Your task to perform on an android device: Open my contact list Image 0: 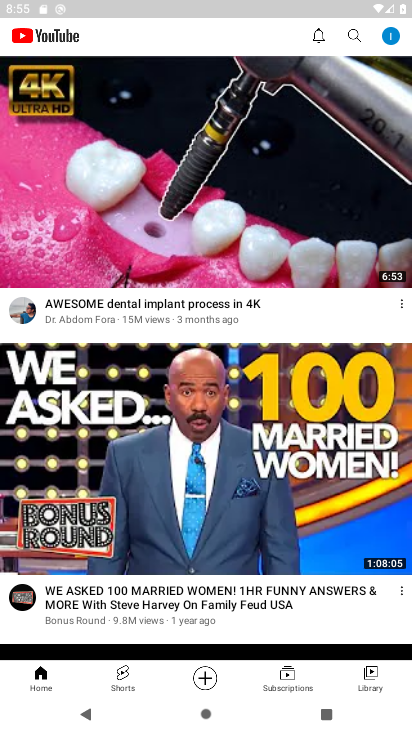
Step 0: press home button
Your task to perform on an android device: Open my contact list Image 1: 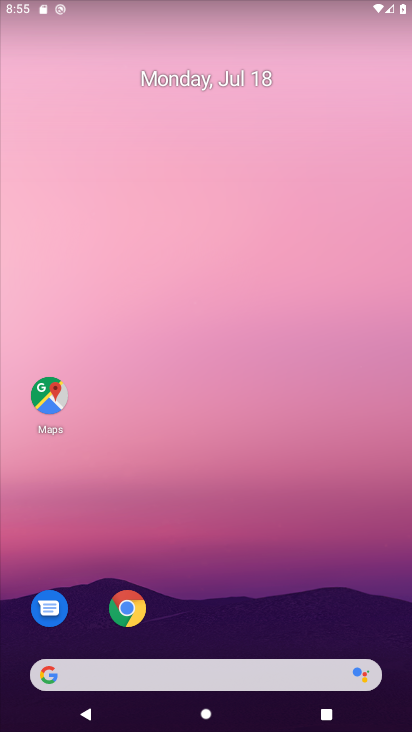
Step 1: drag from (206, 679) to (252, 142)
Your task to perform on an android device: Open my contact list Image 2: 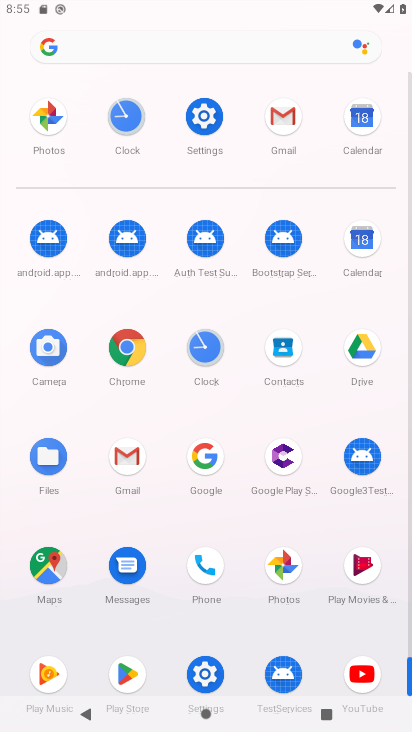
Step 2: click (284, 349)
Your task to perform on an android device: Open my contact list Image 3: 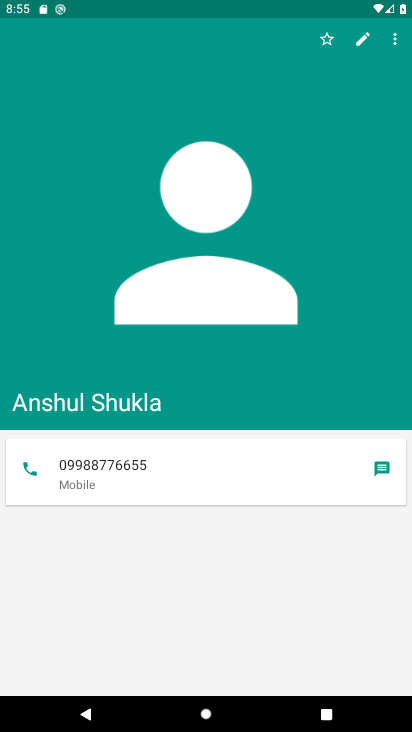
Step 3: task complete